Your task to perform on an android device: open app "Firefox Browser" (install if not already installed) Image 0: 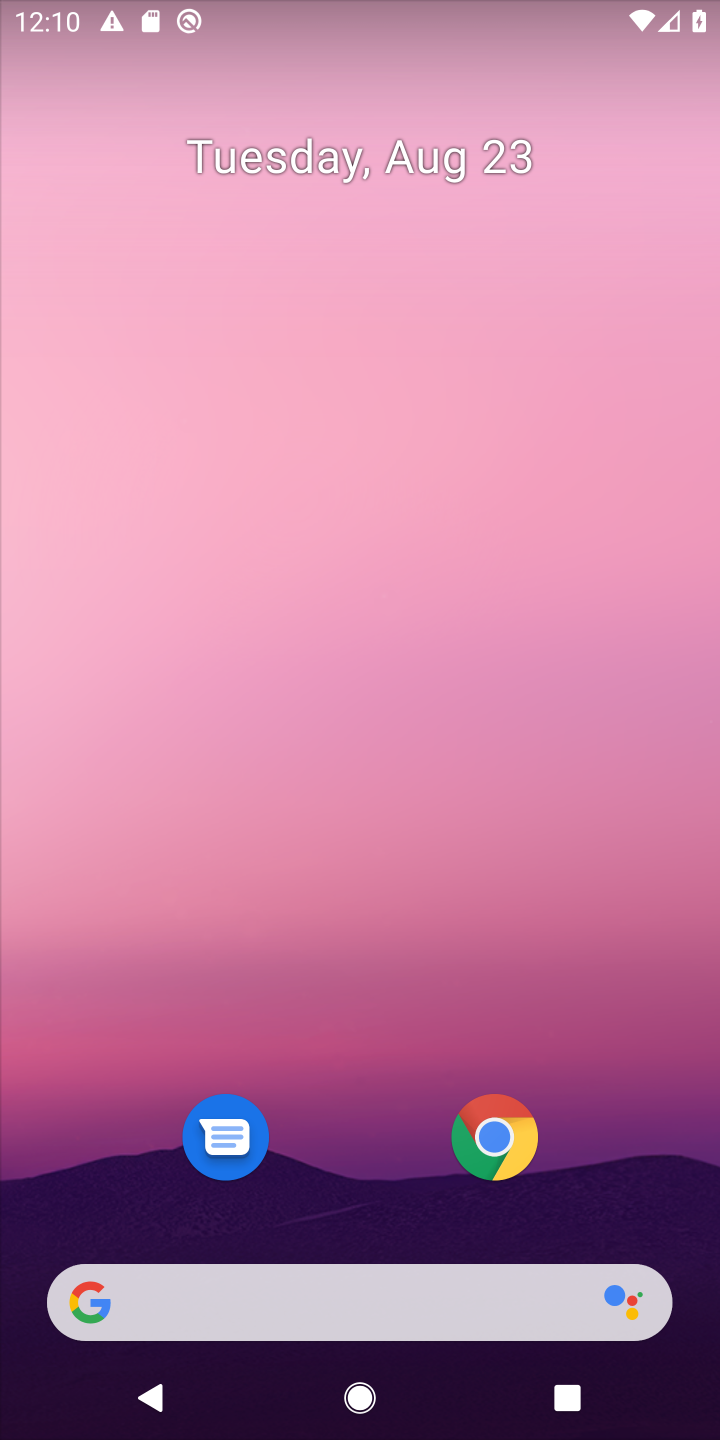
Step 0: drag from (339, 1189) to (352, 0)
Your task to perform on an android device: open app "Firefox Browser" (install if not already installed) Image 1: 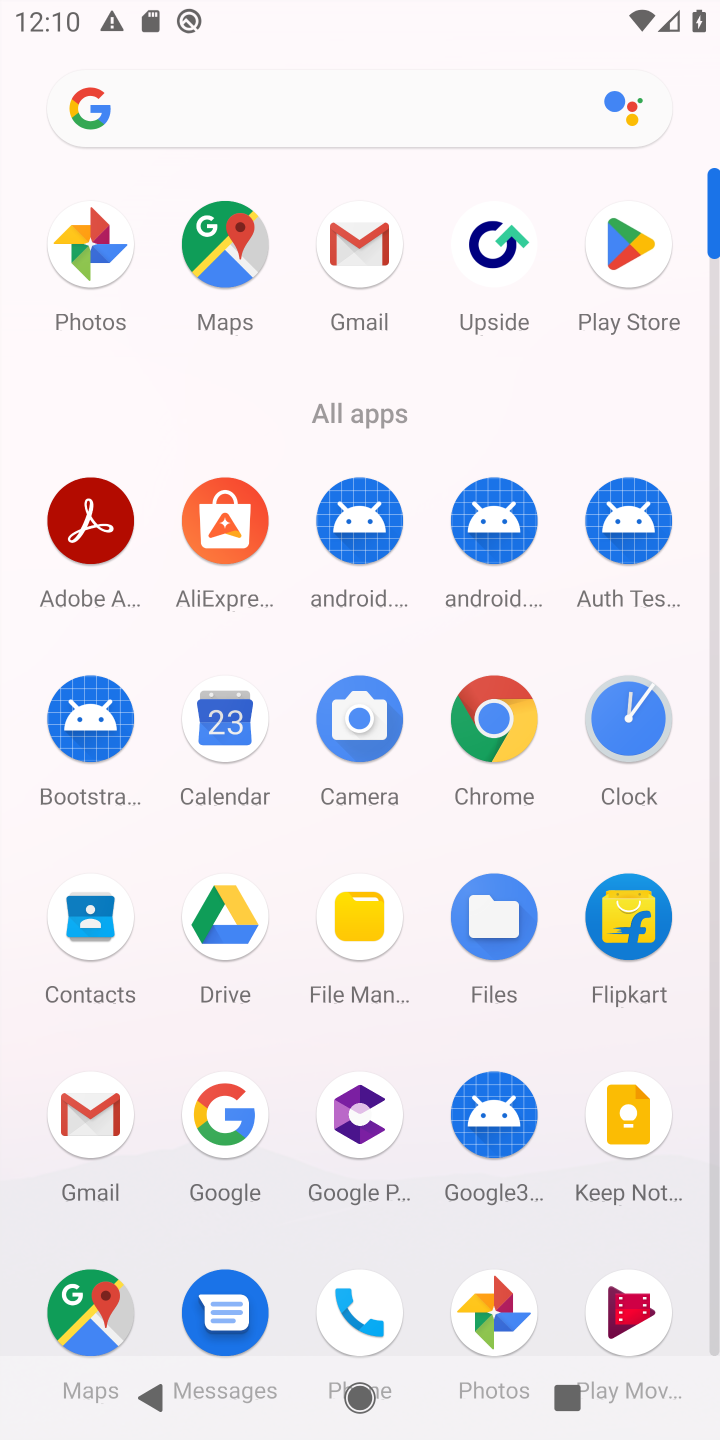
Step 1: click (484, 712)
Your task to perform on an android device: open app "Firefox Browser" (install if not already installed) Image 2: 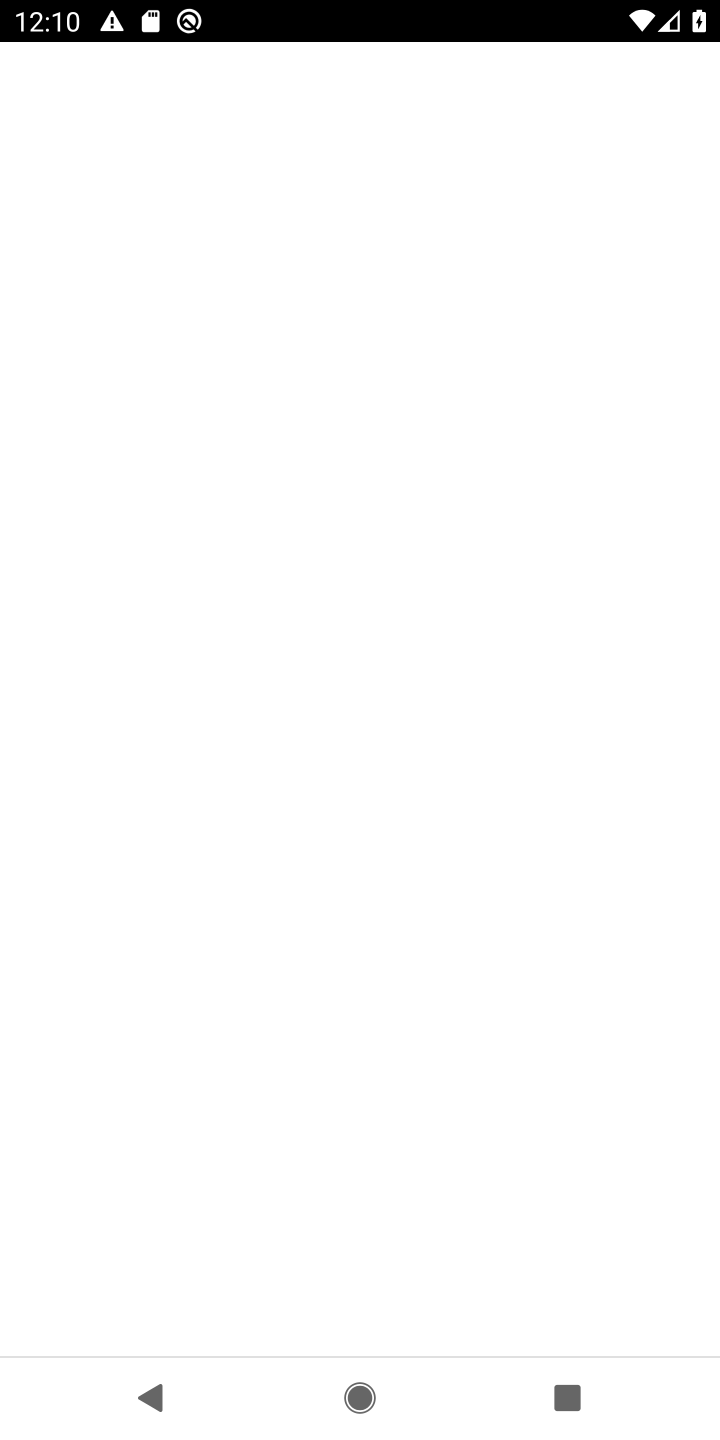
Step 2: press home button
Your task to perform on an android device: open app "Firefox Browser" (install if not already installed) Image 3: 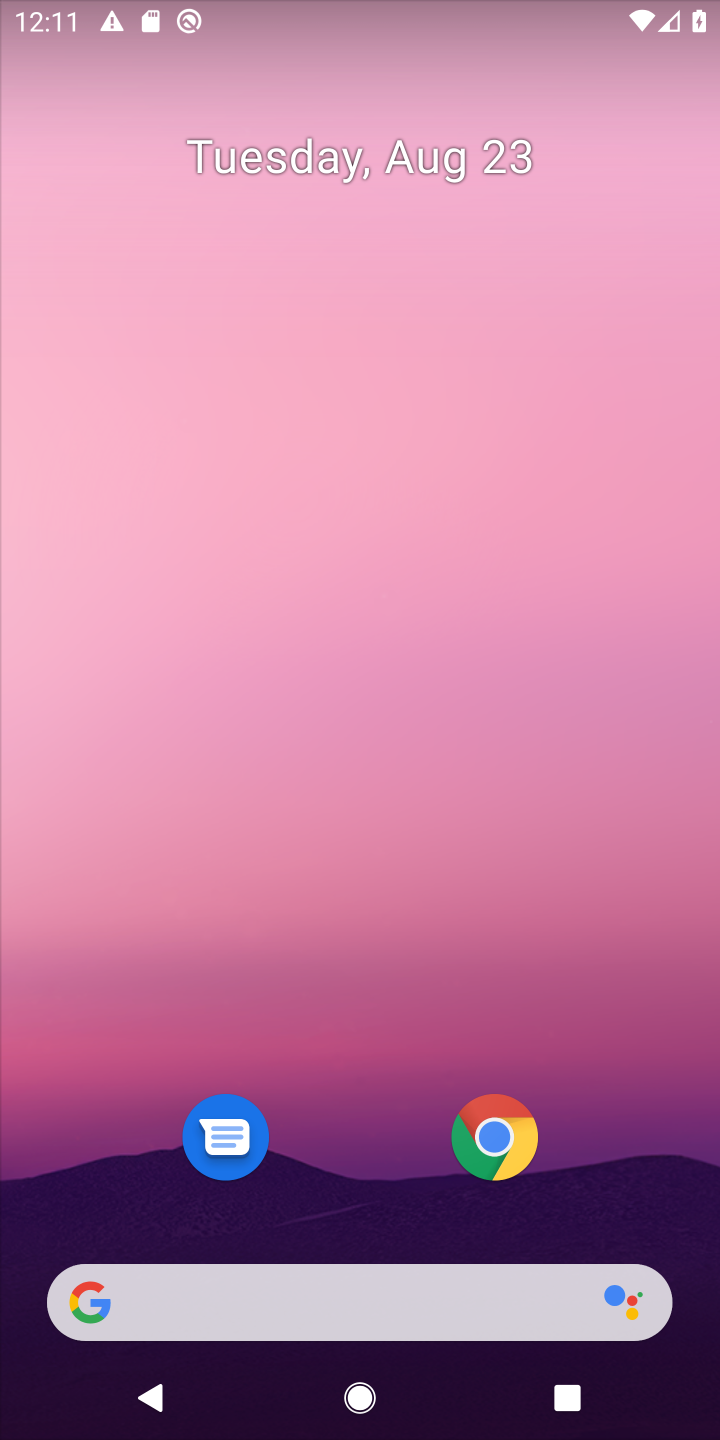
Step 3: press home button
Your task to perform on an android device: open app "Firefox Browser" (install if not already installed) Image 4: 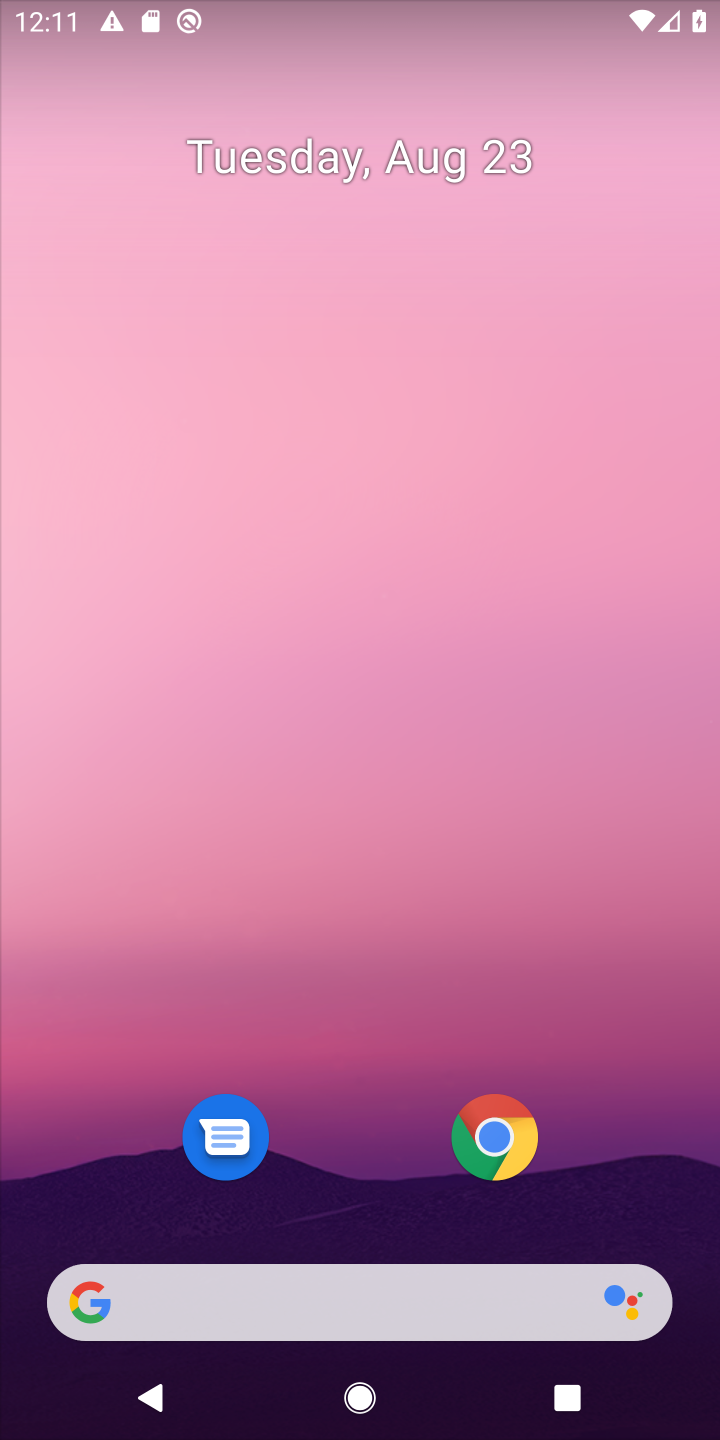
Step 4: drag from (322, 1063) to (322, 121)
Your task to perform on an android device: open app "Firefox Browser" (install if not already installed) Image 5: 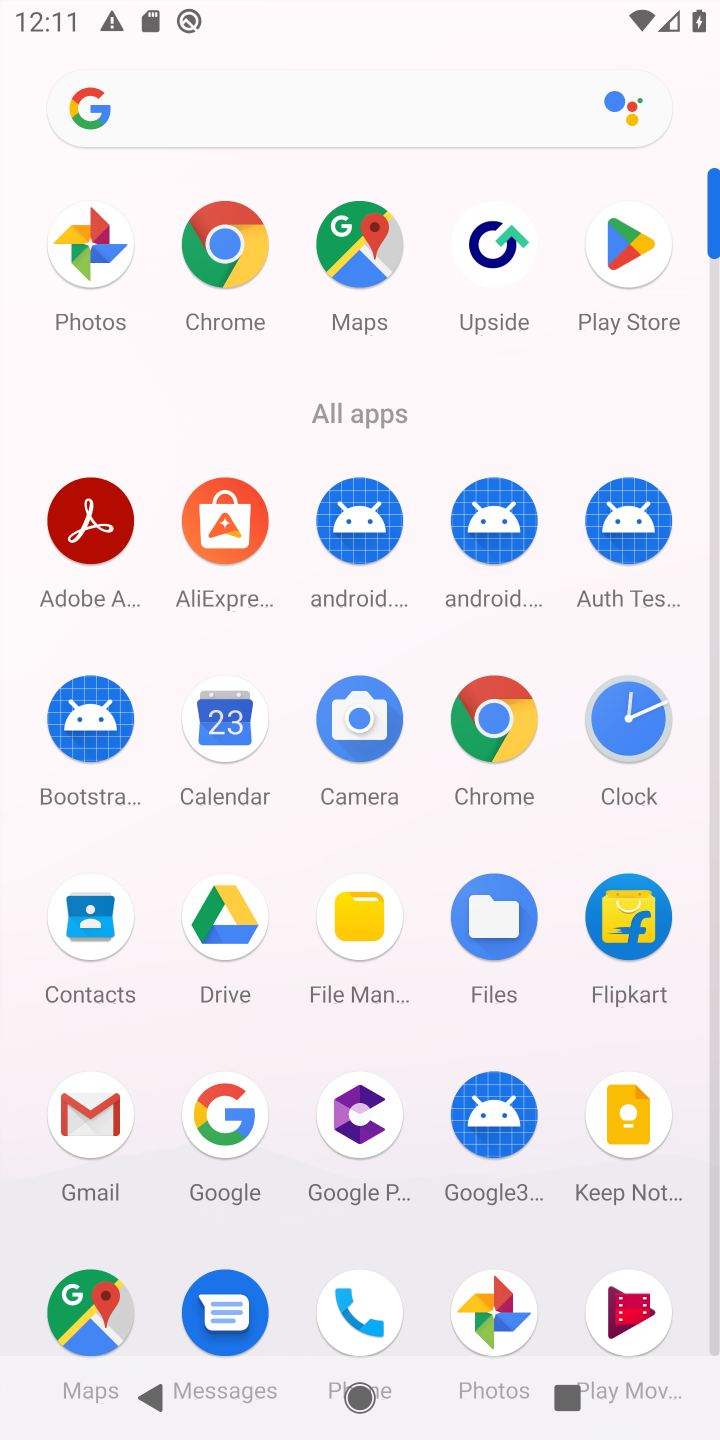
Step 5: click (618, 231)
Your task to perform on an android device: open app "Firefox Browser" (install if not already installed) Image 6: 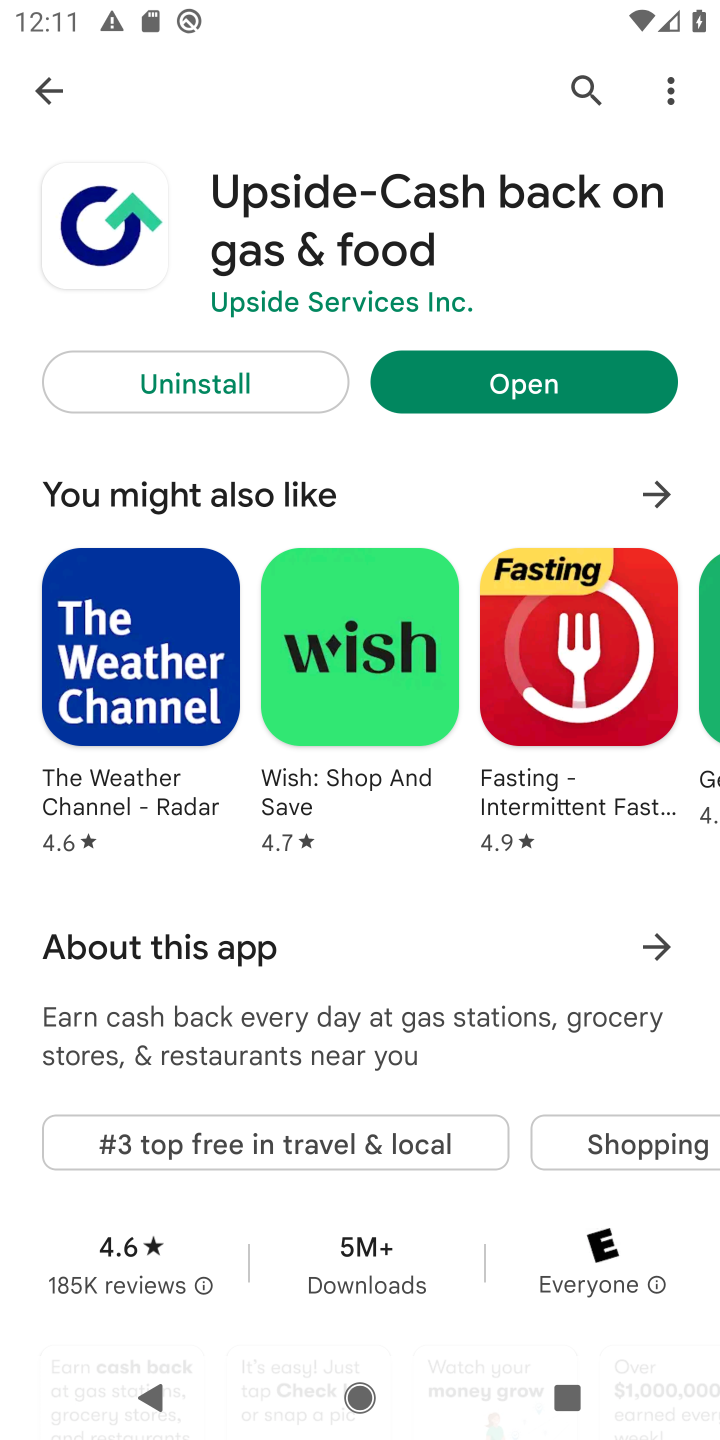
Step 6: click (48, 84)
Your task to perform on an android device: open app "Firefox Browser" (install if not already installed) Image 7: 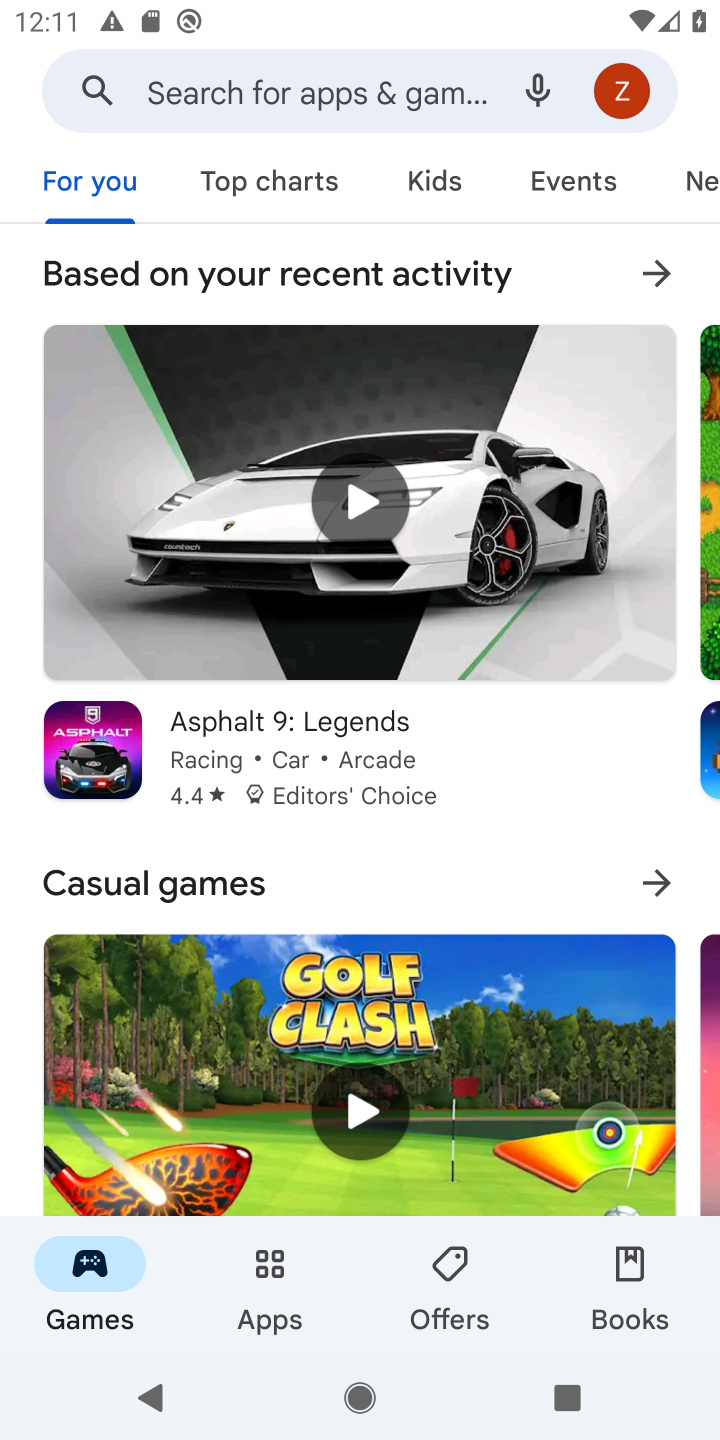
Step 7: click (270, 95)
Your task to perform on an android device: open app "Firefox Browser" (install if not already installed) Image 8: 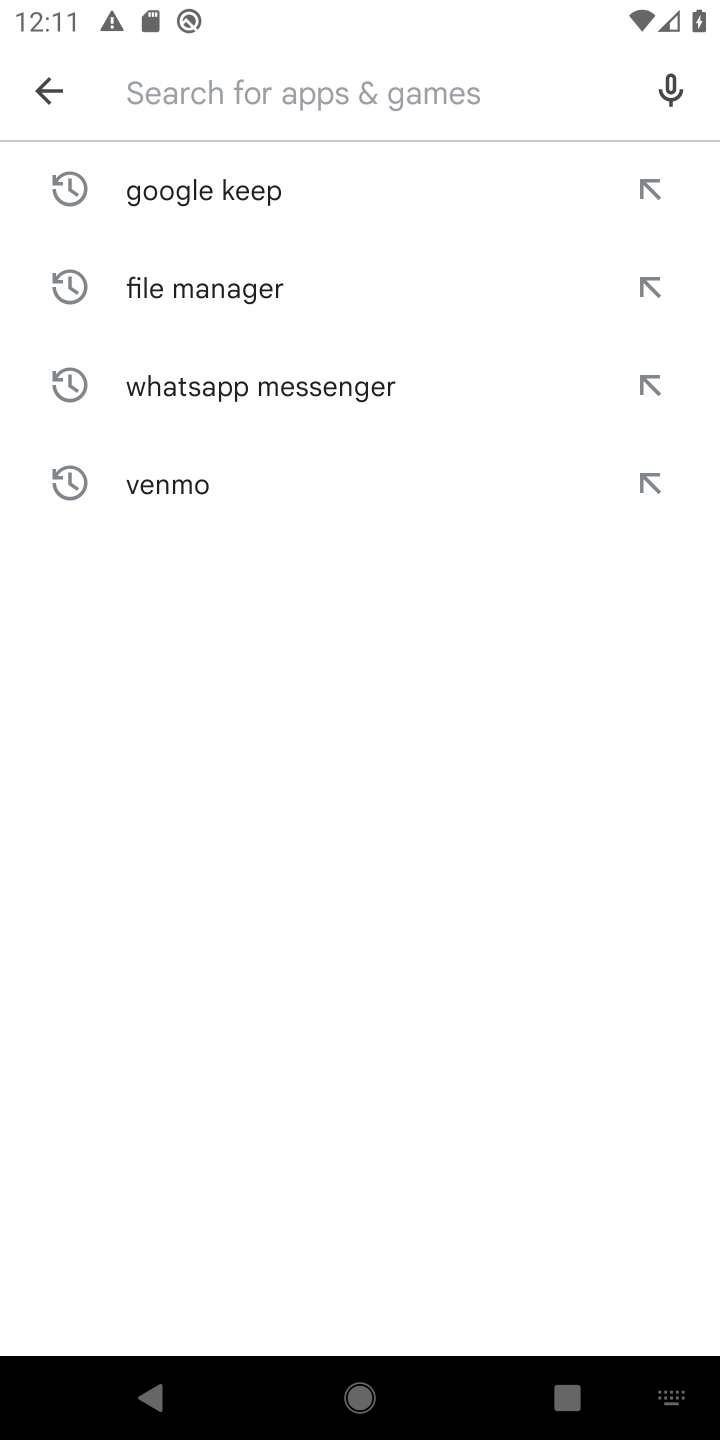
Step 8: type "Firefox Browser"
Your task to perform on an android device: open app "Firefox Browser" (install if not already installed) Image 9: 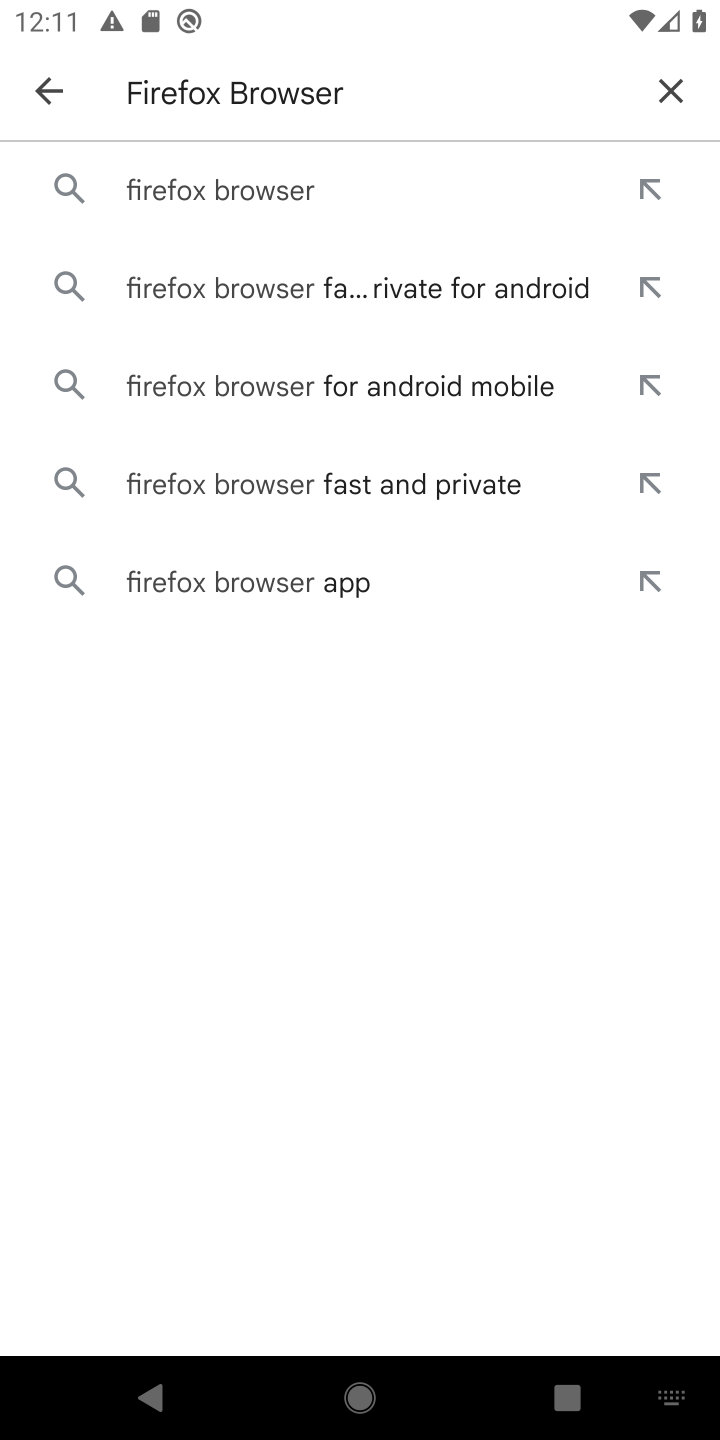
Step 9: click (227, 193)
Your task to perform on an android device: open app "Firefox Browser" (install if not already installed) Image 10: 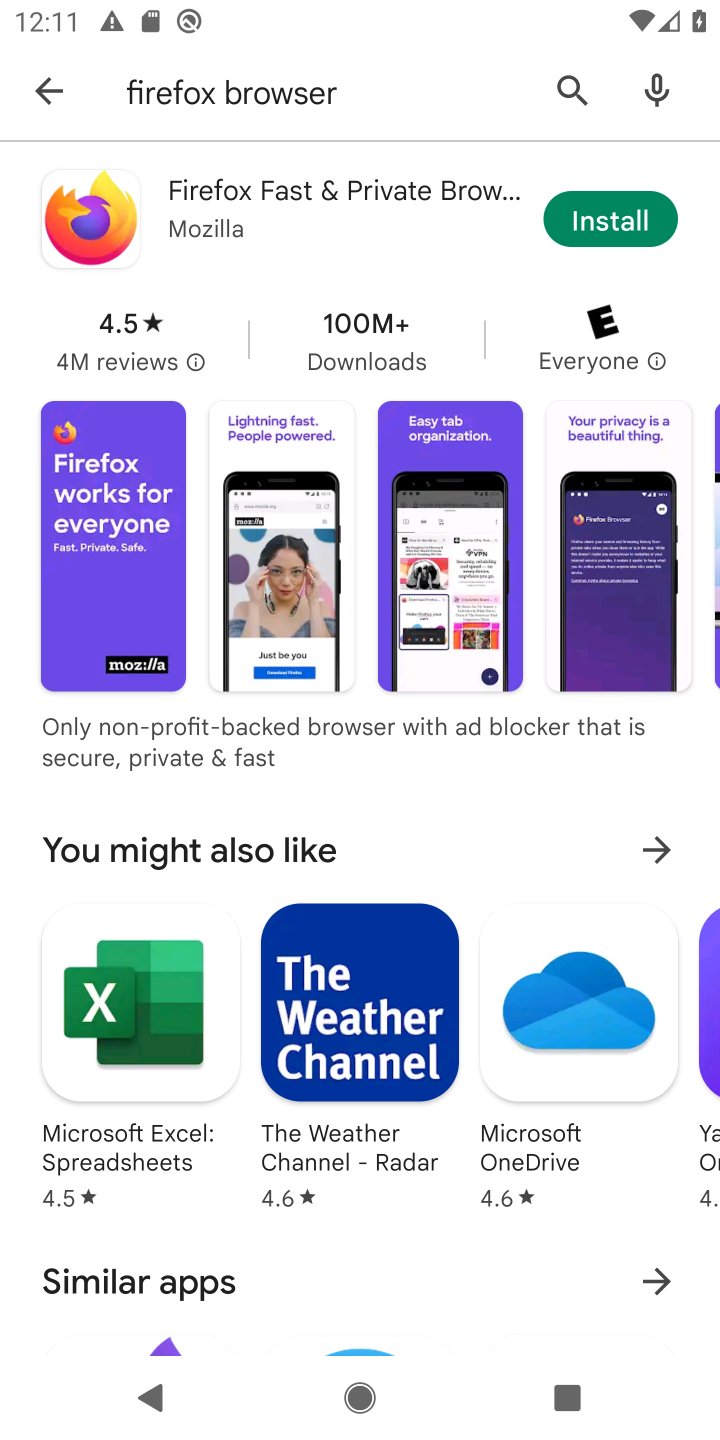
Step 10: click (593, 211)
Your task to perform on an android device: open app "Firefox Browser" (install if not already installed) Image 11: 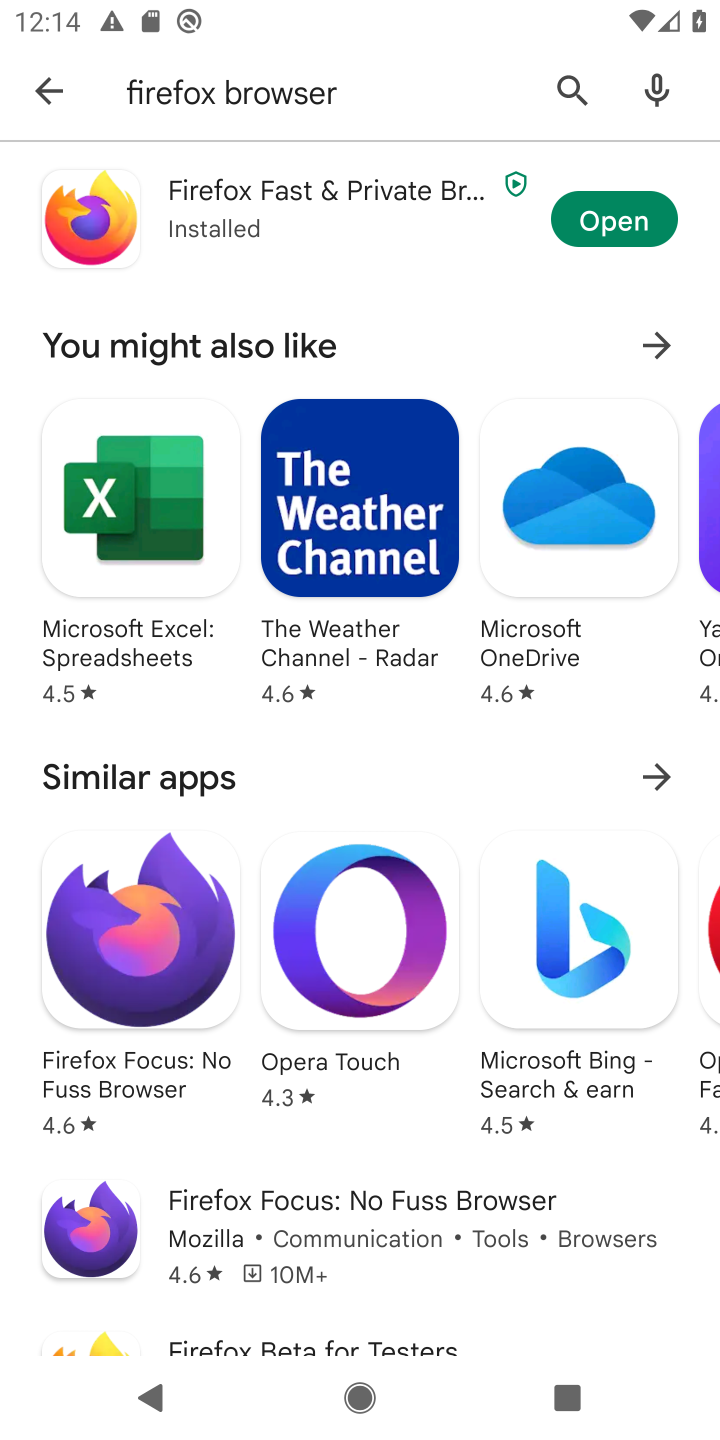
Step 11: click (596, 235)
Your task to perform on an android device: open app "Firefox Browser" (install if not already installed) Image 12: 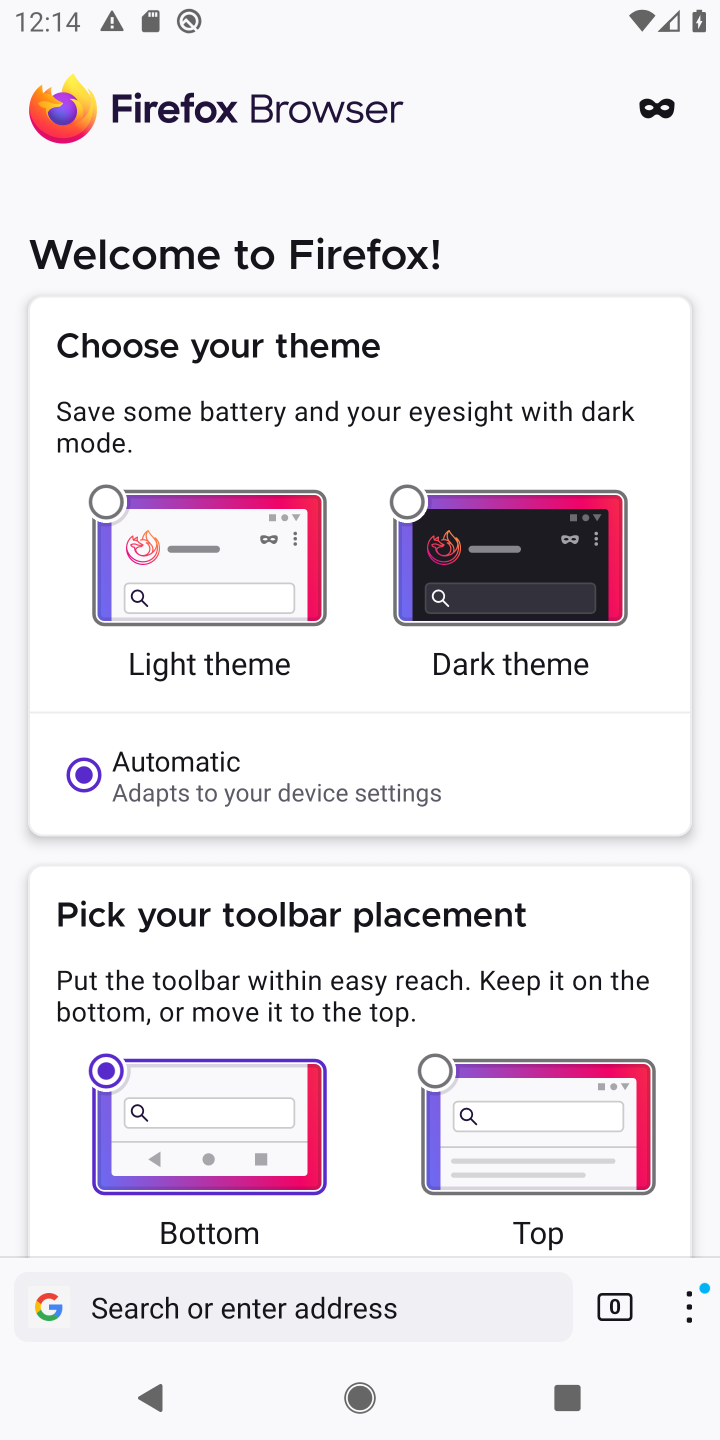
Step 12: task complete